Your task to perform on an android device: change the clock style Image 0: 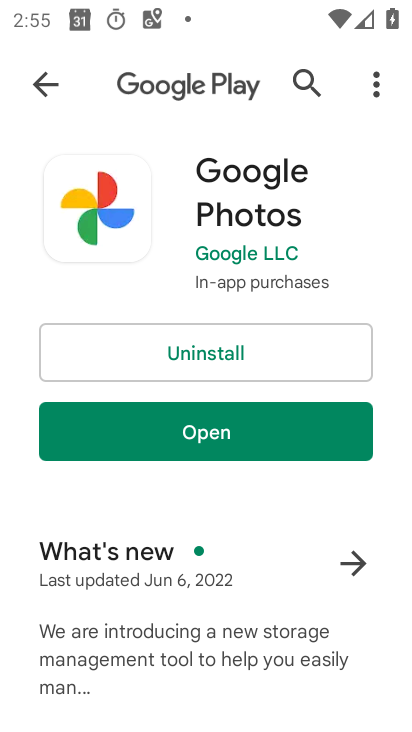
Step 0: press home button
Your task to perform on an android device: change the clock style Image 1: 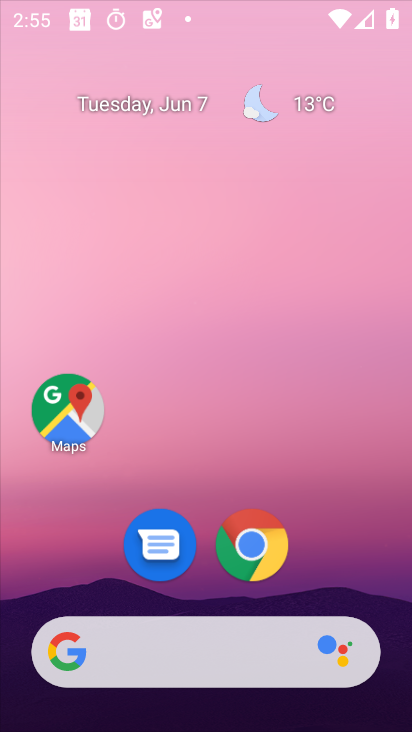
Step 1: drag from (342, 433) to (179, 18)
Your task to perform on an android device: change the clock style Image 2: 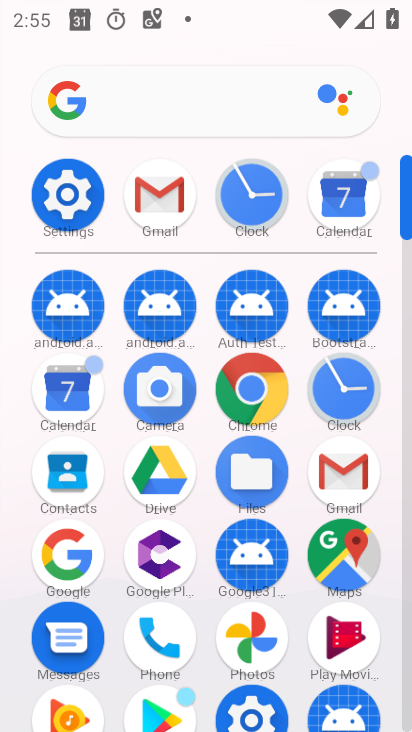
Step 2: click (263, 183)
Your task to perform on an android device: change the clock style Image 3: 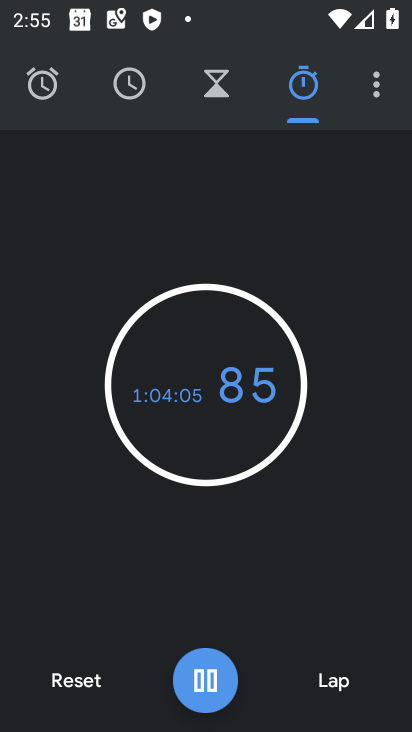
Step 3: click (371, 75)
Your task to perform on an android device: change the clock style Image 4: 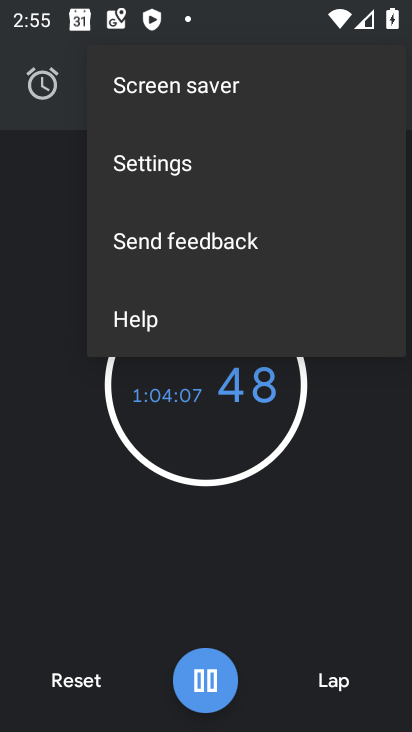
Step 4: click (211, 158)
Your task to perform on an android device: change the clock style Image 5: 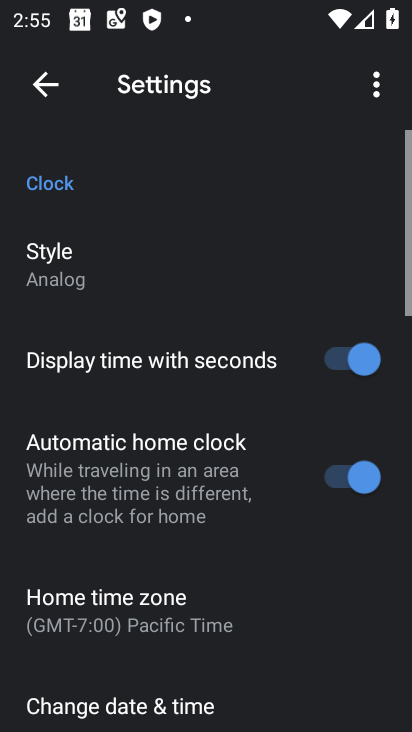
Step 5: click (92, 277)
Your task to perform on an android device: change the clock style Image 6: 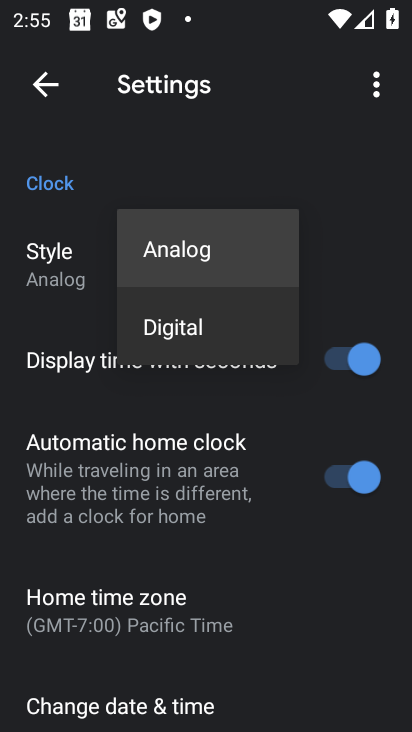
Step 6: click (203, 307)
Your task to perform on an android device: change the clock style Image 7: 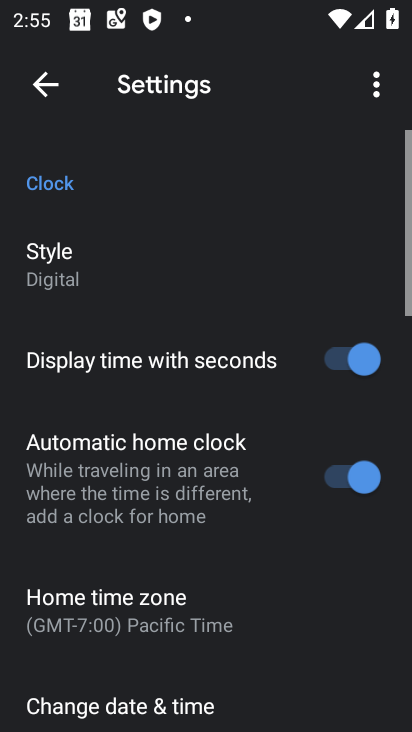
Step 7: task complete